Your task to perform on an android device: open app "WhatsApp Messenger" (install if not already installed) Image 0: 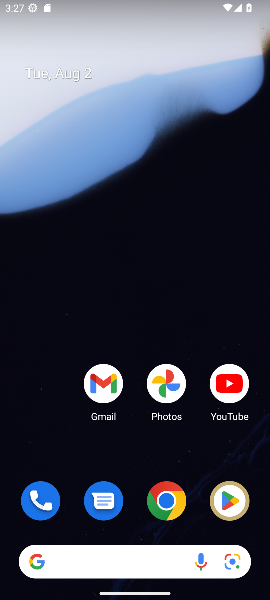
Step 0: drag from (150, 339) to (107, 109)
Your task to perform on an android device: open app "WhatsApp Messenger" (install if not already installed) Image 1: 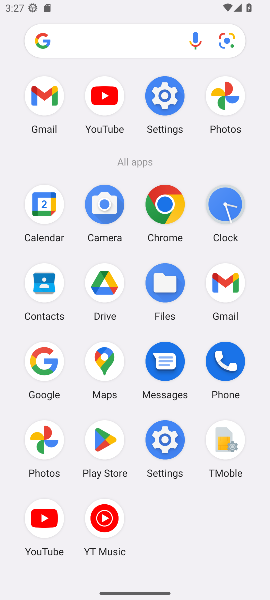
Step 1: click (93, 444)
Your task to perform on an android device: open app "WhatsApp Messenger" (install if not already installed) Image 2: 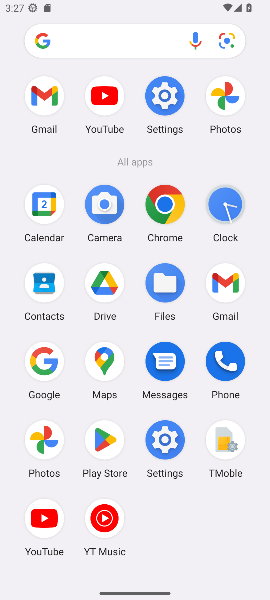
Step 2: click (105, 435)
Your task to perform on an android device: open app "WhatsApp Messenger" (install if not already installed) Image 3: 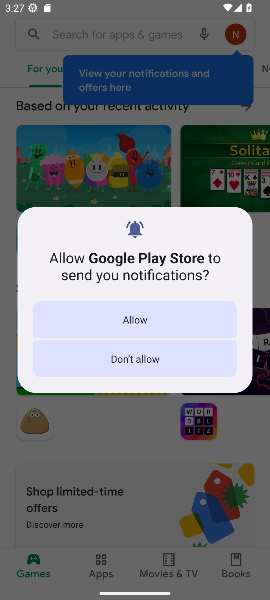
Step 3: click (169, 352)
Your task to perform on an android device: open app "WhatsApp Messenger" (install if not already installed) Image 4: 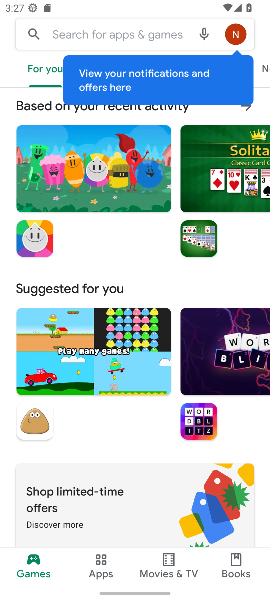
Step 4: click (169, 352)
Your task to perform on an android device: open app "WhatsApp Messenger" (install if not already installed) Image 5: 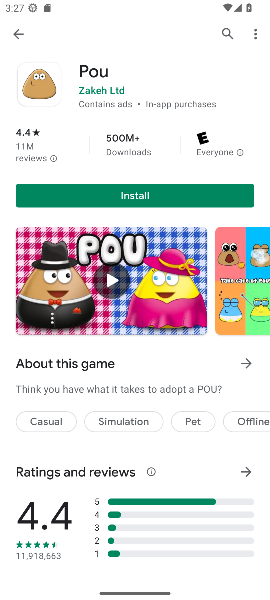
Step 5: click (223, 29)
Your task to perform on an android device: open app "WhatsApp Messenger" (install if not already installed) Image 6: 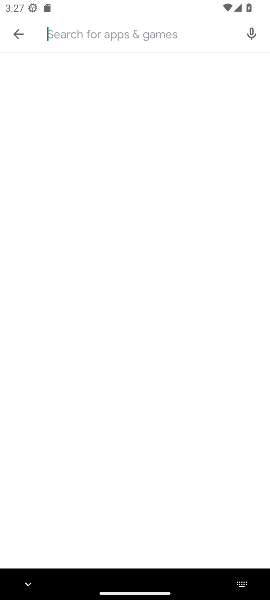
Step 6: type "whatsapp"
Your task to perform on an android device: open app "WhatsApp Messenger" (install if not already installed) Image 7: 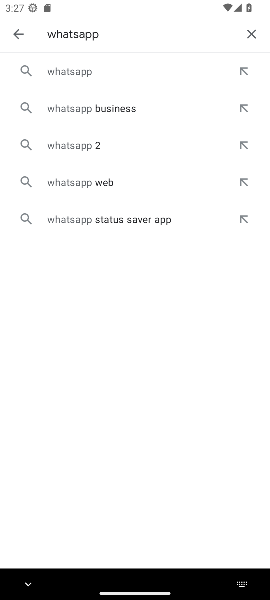
Step 7: click (130, 70)
Your task to perform on an android device: open app "WhatsApp Messenger" (install if not already installed) Image 8: 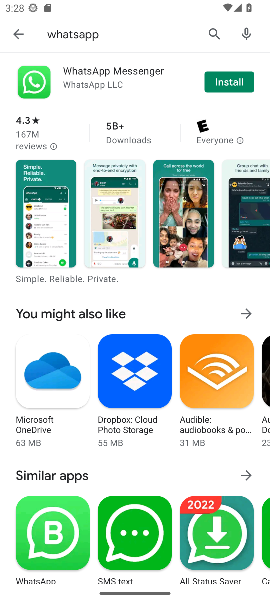
Step 8: click (209, 81)
Your task to perform on an android device: open app "WhatsApp Messenger" (install if not already installed) Image 9: 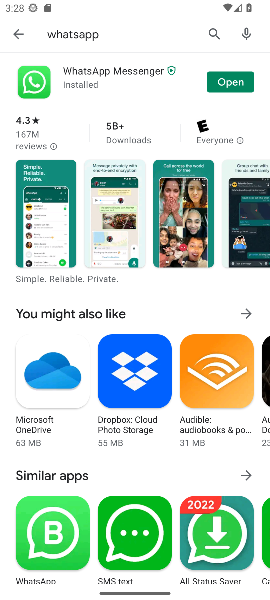
Step 9: click (232, 80)
Your task to perform on an android device: open app "WhatsApp Messenger" (install if not already installed) Image 10: 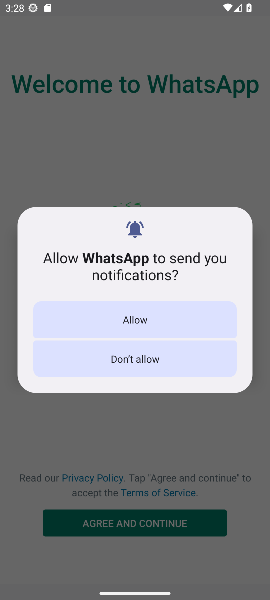
Step 10: click (153, 326)
Your task to perform on an android device: open app "WhatsApp Messenger" (install if not already installed) Image 11: 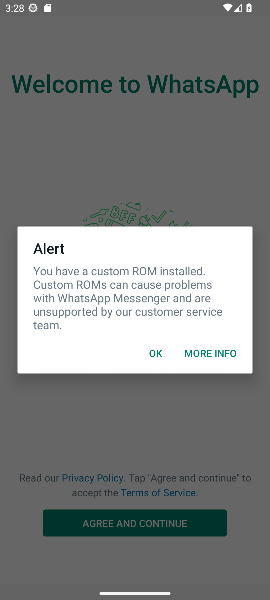
Step 11: click (159, 355)
Your task to perform on an android device: open app "WhatsApp Messenger" (install if not already installed) Image 12: 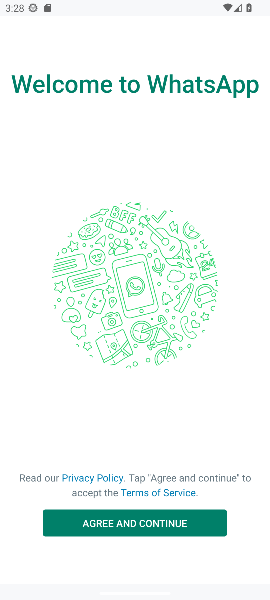
Step 12: task complete